Your task to perform on an android device: open app "Facebook Lite" (install if not already installed) and enter user name: "suppers@inbox.com" and password: "downplayed" Image 0: 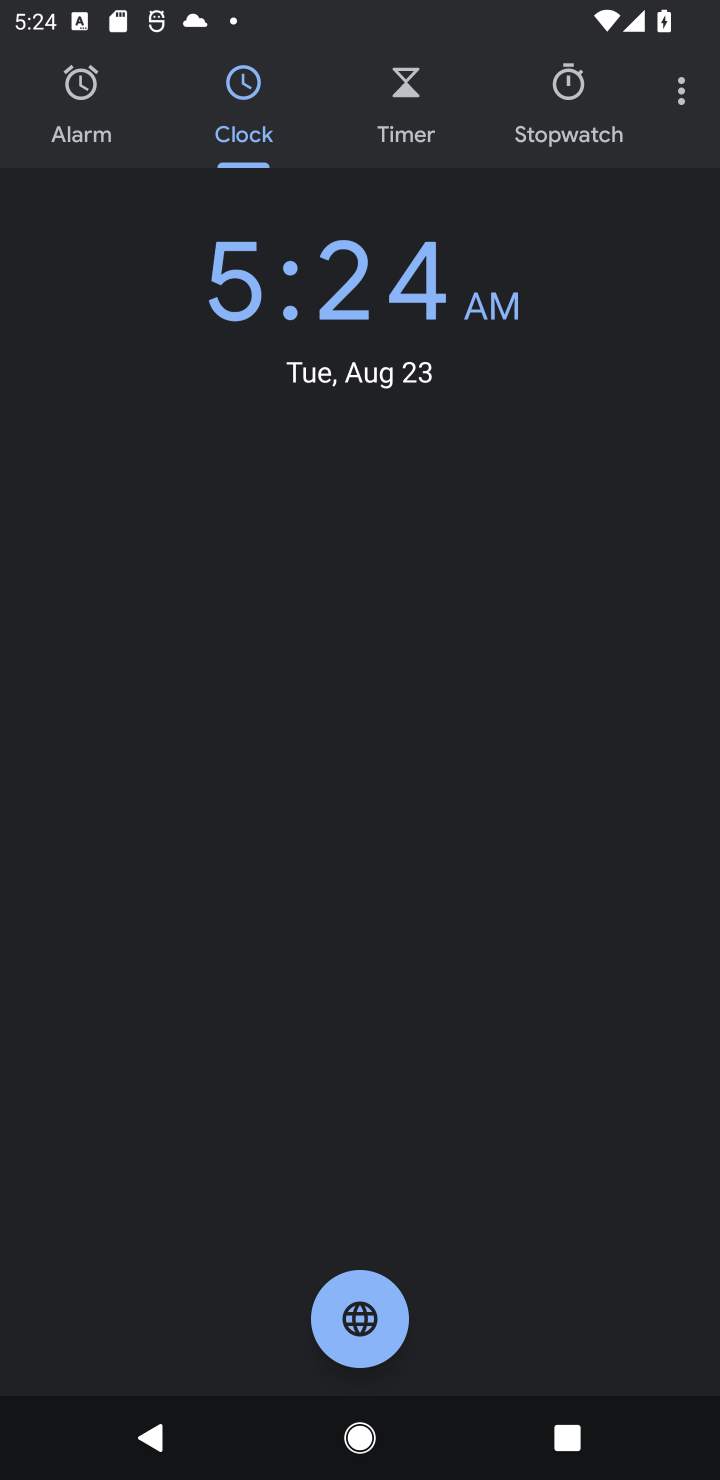
Step 0: press home button
Your task to perform on an android device: open app "Facebook Lite" (install if not already installed) and enter user name: "suppers@inbox.com" and password: "downplayed" Image 1: 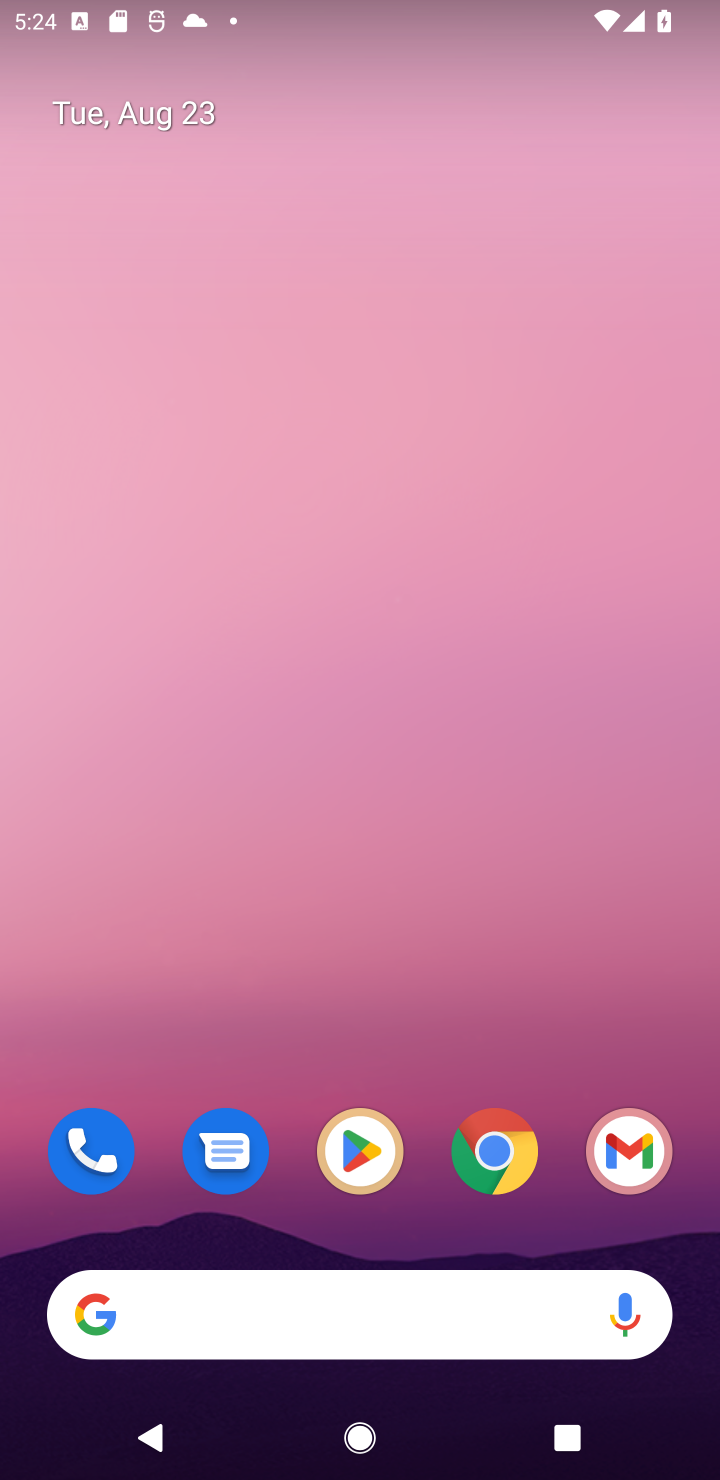
Step 1: click (369, 1148)
Your task to perform on an android device: open app "Facebook Lite" (install if not already installed) and enter user name: "suppers@inbox.com" and password: "downplayed" Image 2: 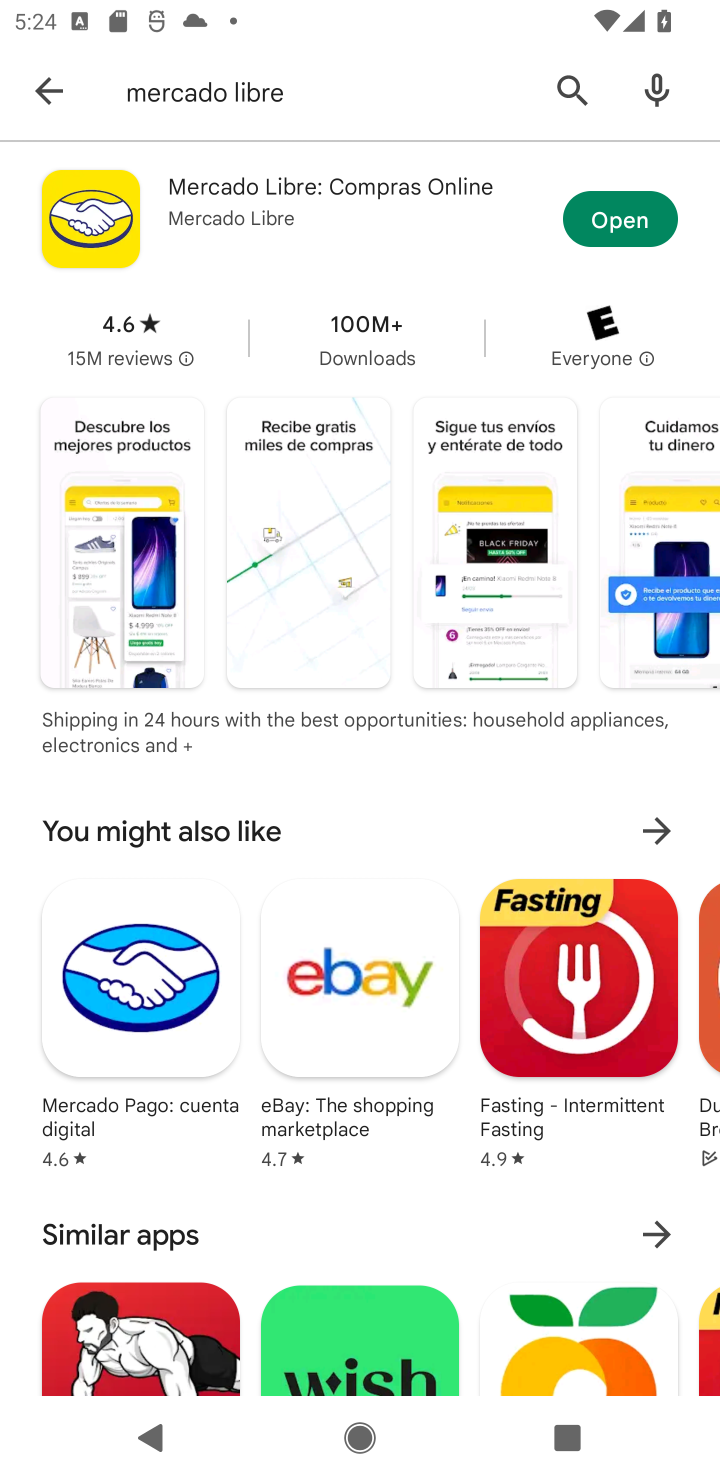
Step 2: click (564, 73)
Your task to perform on an android device: open app "Facebook Lite" (install if not already installed) and enter user name: "suppers@inbox.com" and password: "downplayed" Image 3: 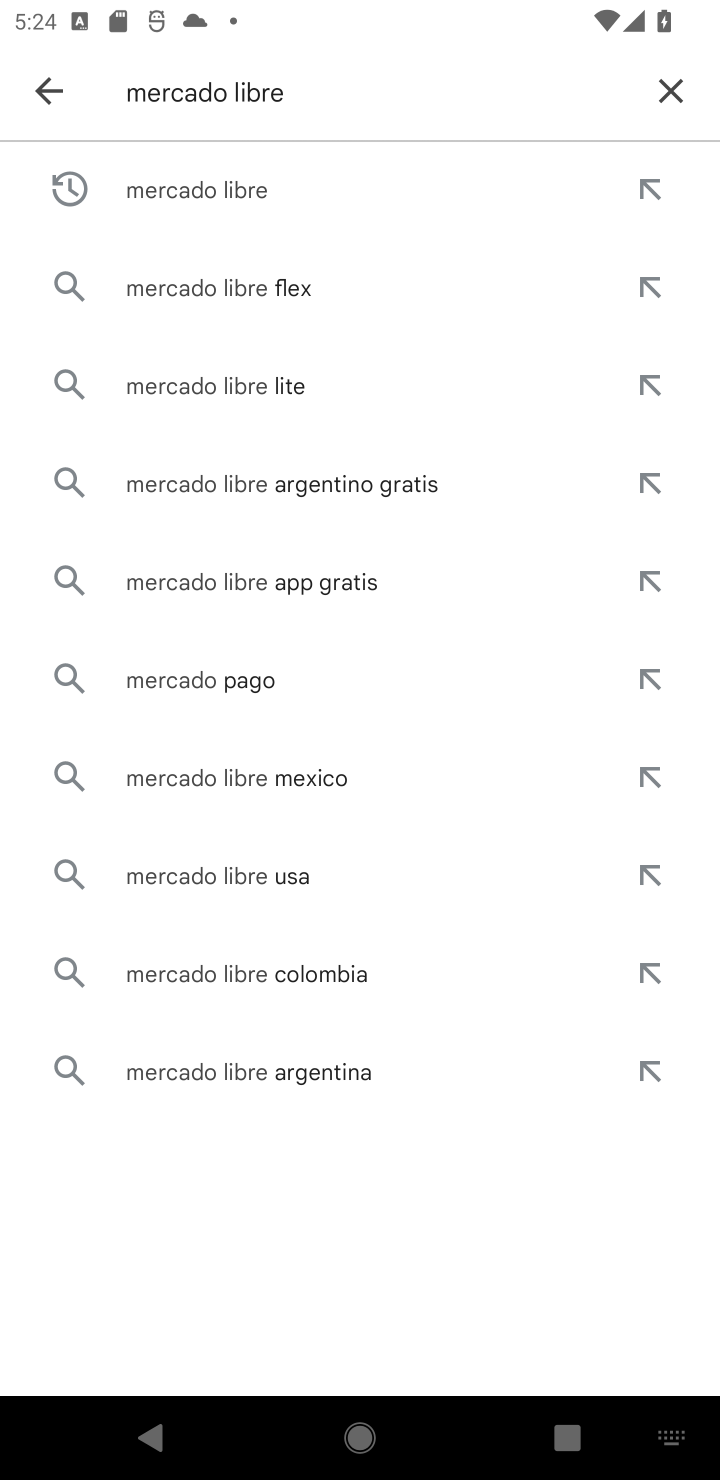
Step 3: click (667, 96)
Your task to perform on an android device: open app "Facebook Lite" (install if not already installed) and enter user name: "suppers@inbox.com" and password: "downplayed" Image 4: 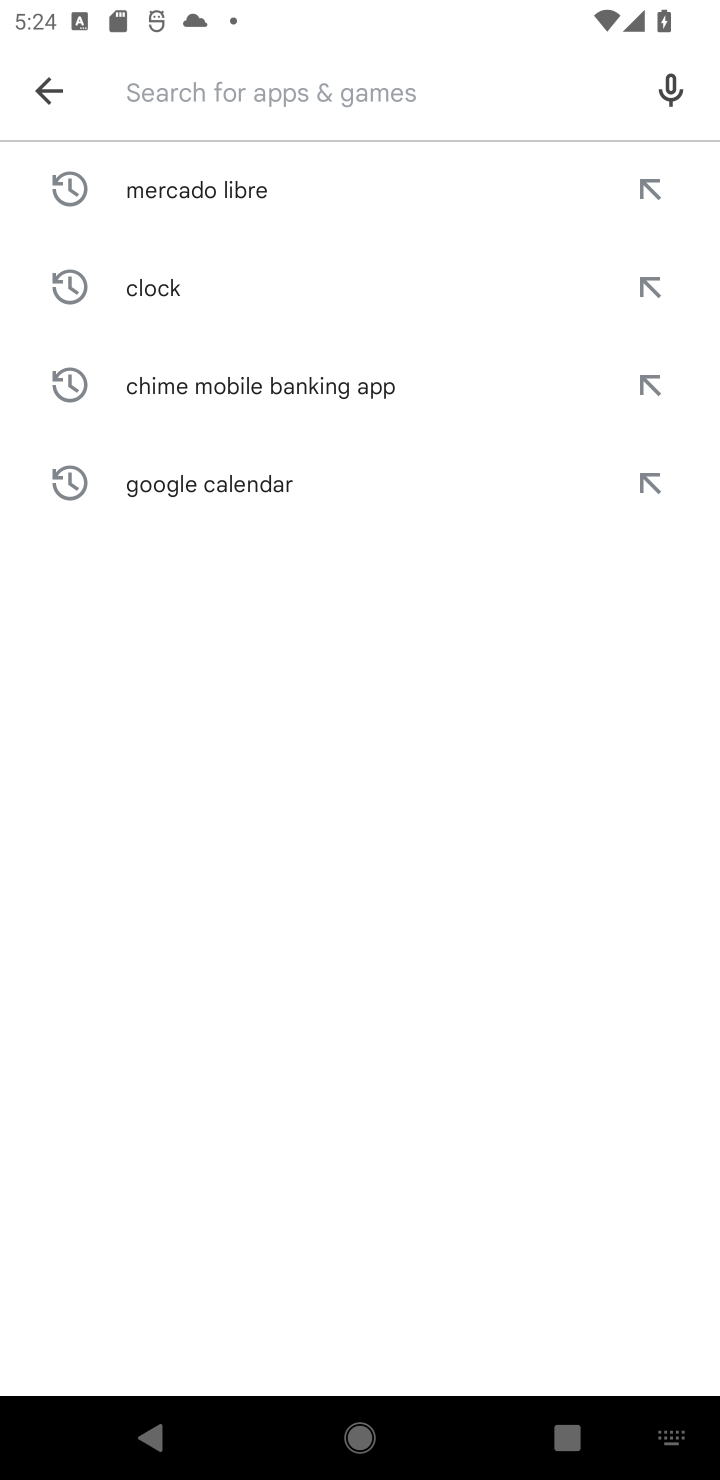
Step 4: type "Facebook Lite"
Your task to perform on an android device: open app "Facebook Lite" (install if not already installed) and enter user name: "suppers@inbox.com" and password: "downplayed" Image 5: 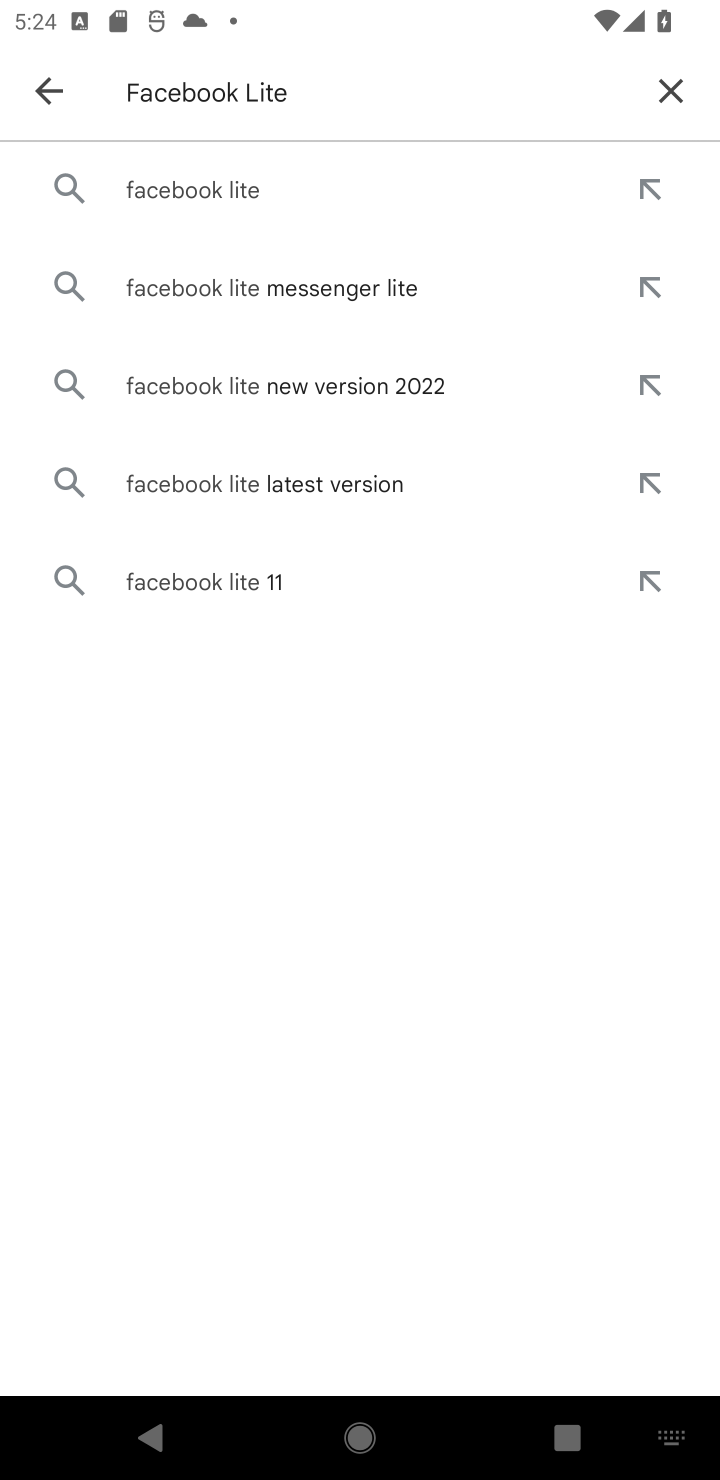
Step 5: click (200, 189)
Your task to perform on an android device: open app "Facebook Lite" (install if not already installed) and enter user name: "suppers@inbox.com" and password: "downplayed" Image 6: 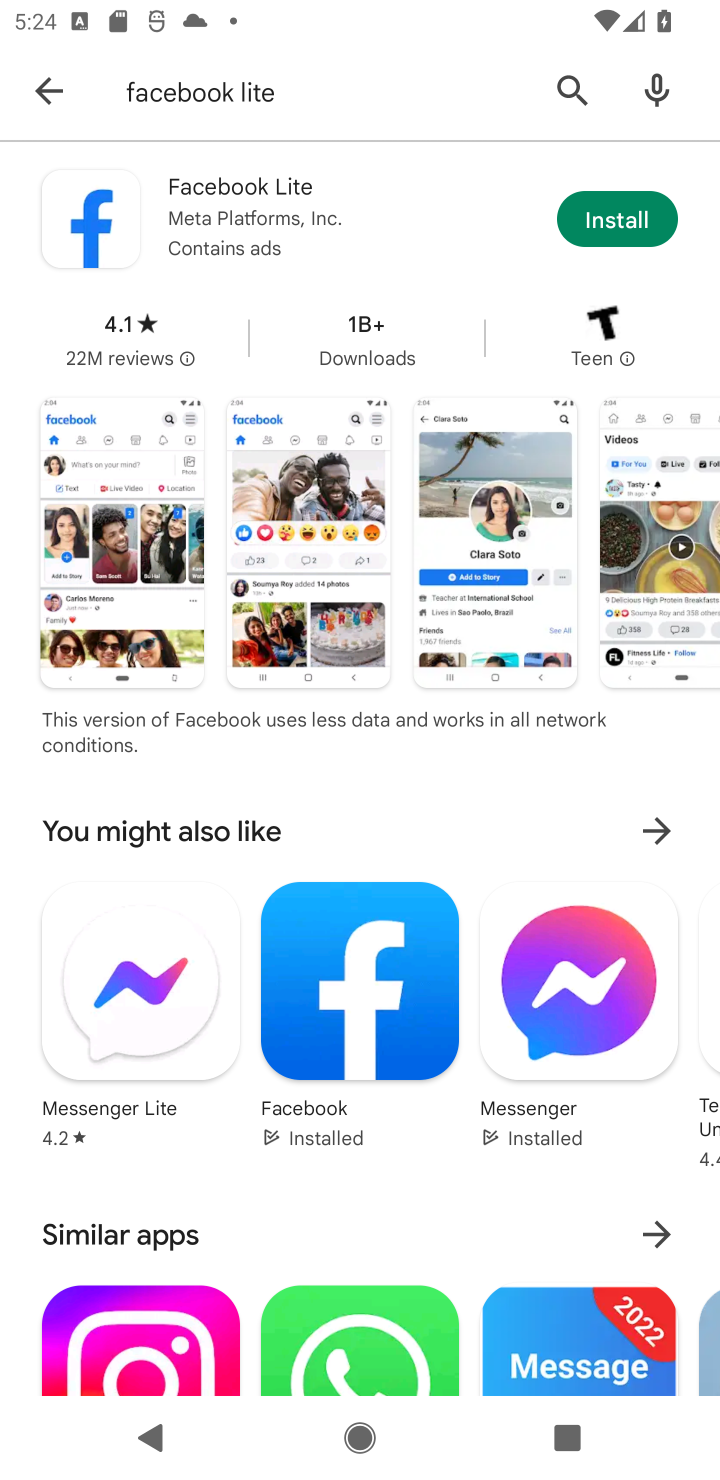
Step 6: click (627, 222)
Your task to perform on an android device: open app "Facebook Lite" (install if not already installed) and enter user name: "suppers@inbox.com" and password: "downplayed" Image 7: 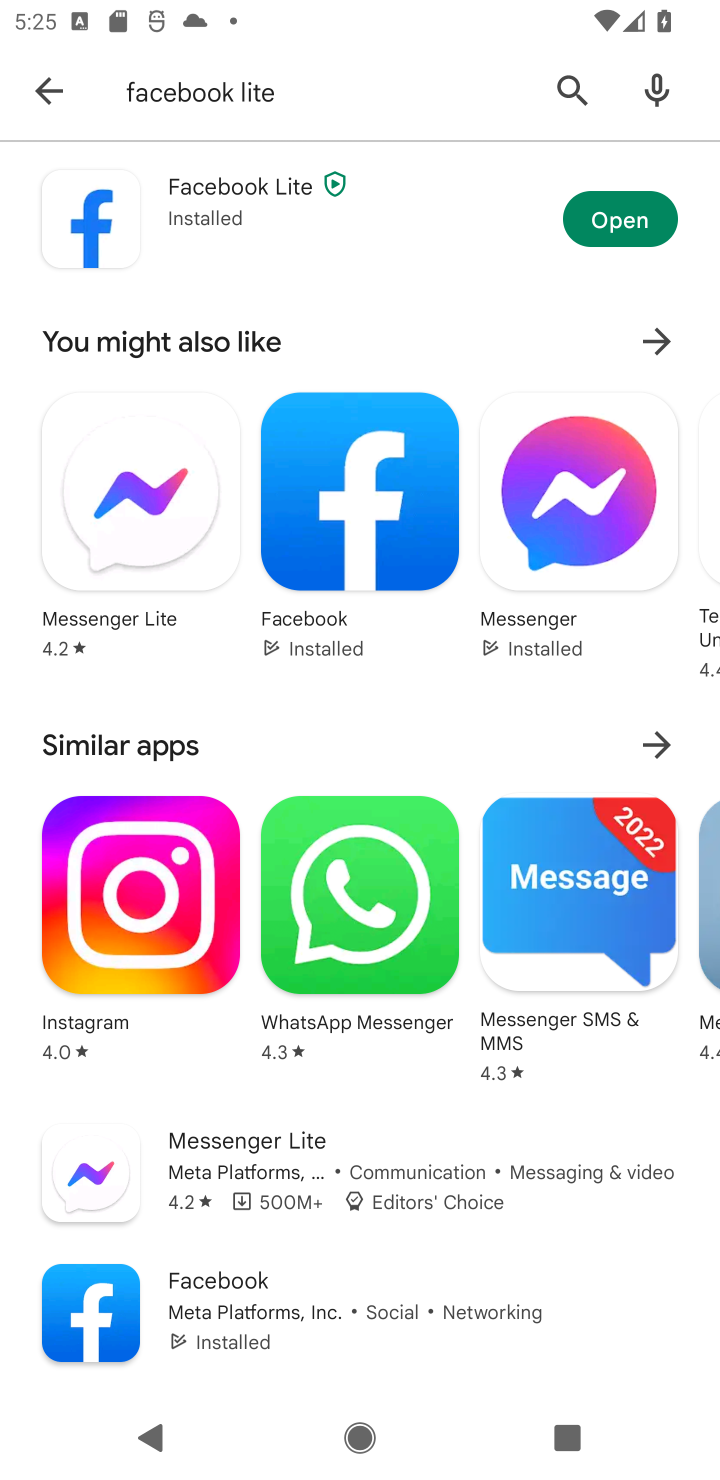
Step 7: click (624, 223)
Your task to perform on an android device: open app "Facebook Lite" (install if not already installed) and enter user name: "suppers@inbox.com" and password: "downplayed" Image 8: 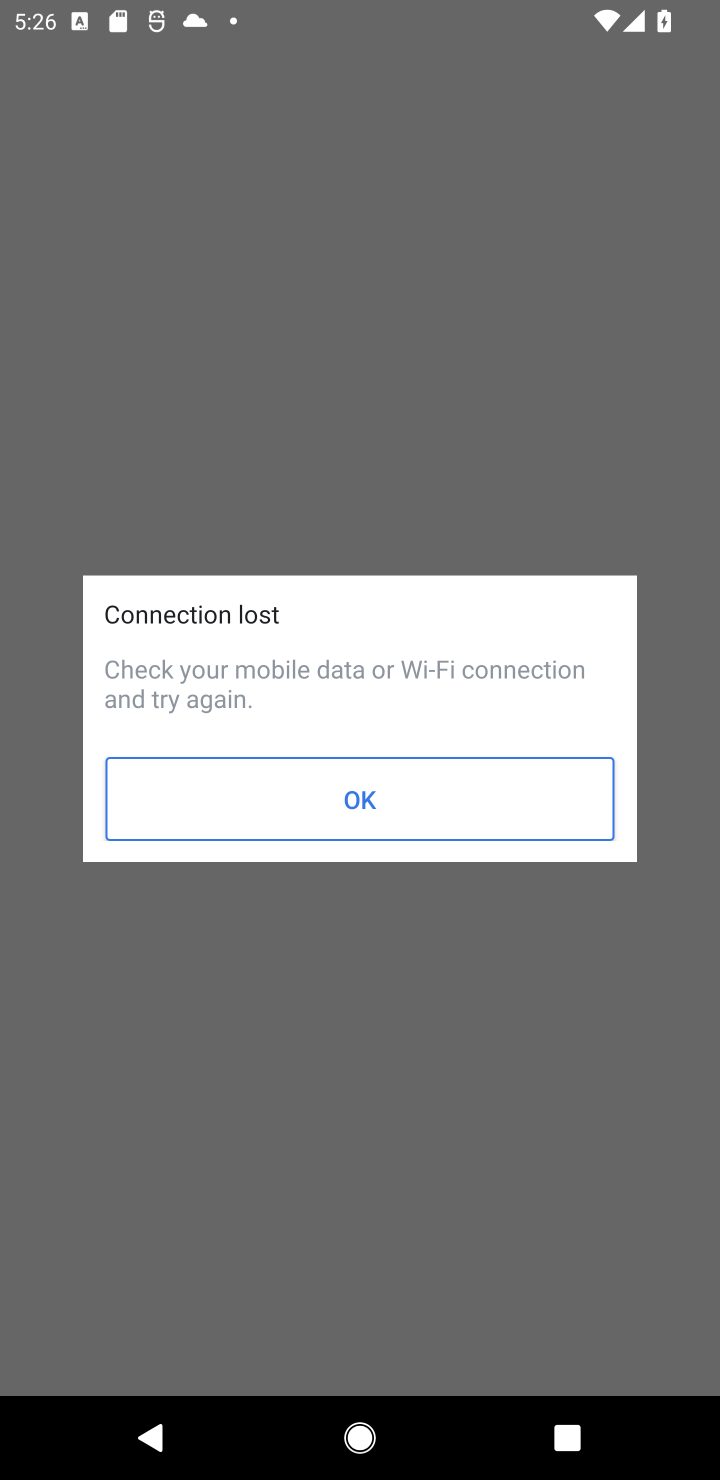
Step 8: task complete